Your task to perform on an android device: toggle notifications settings in the gmail app Image 0: 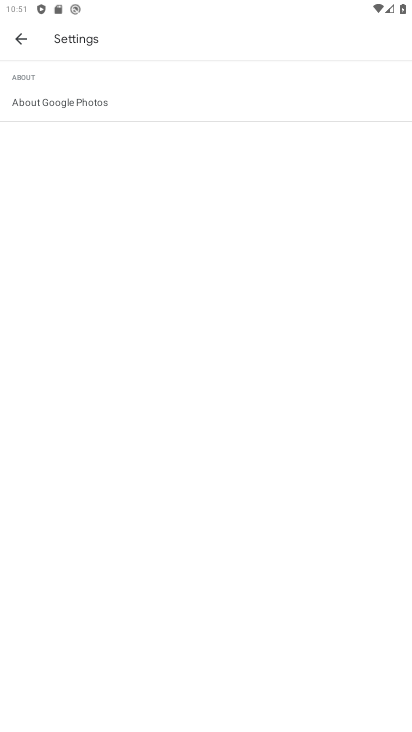
Step 0: press home button
Your task to perform on an android device: toggle notifications settings in the gmail app Image 1: 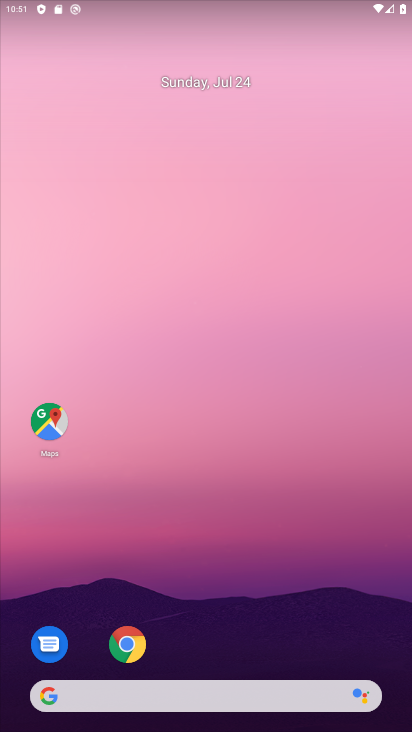
Step 1: drag from (276, 670) to (248, 22)
Your task to perform on an android device: toggle notifications settings in the gmail app Image 2: 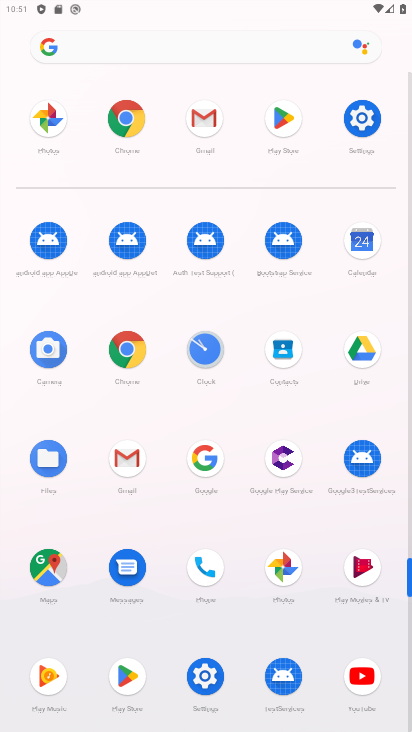
Step 2: click (207, 123)
Your task to perform on an android device: toggle notifications settings in the gmail app Image 3: 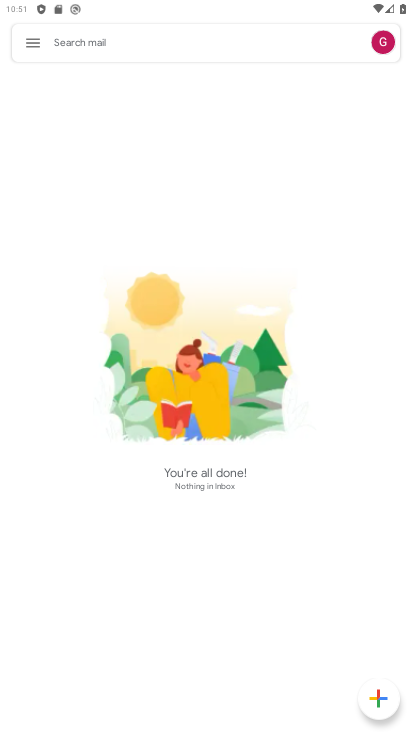
Step 3: click (32, 44)
Your task to perform on an android device: toggle notifications settings in the gmail app Image 4: 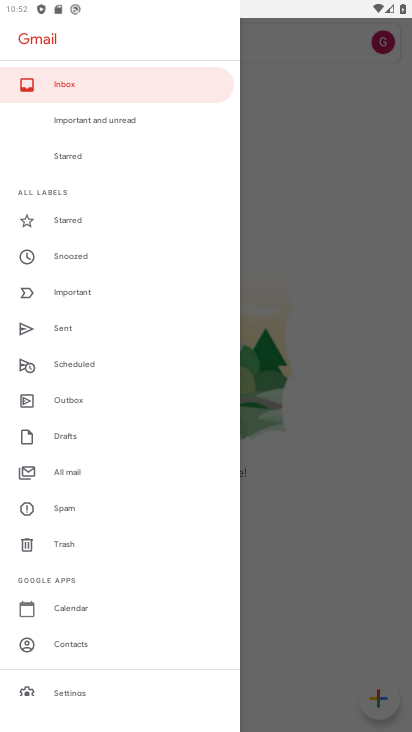
Step 4: drag from (112, 628) to (144, 342)
Your task to perform on an android device: toggle notifications settings in the gmail app Image 5: 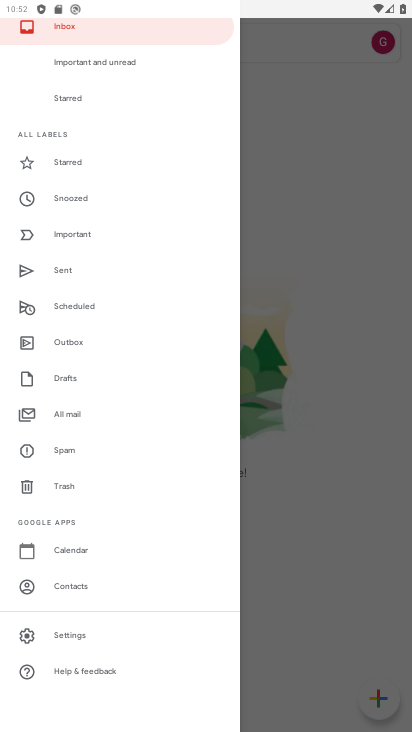
Step 5: click (73, 640)
Your task to perform on an android device: toggle notifications settings in the gmail app Image 6: 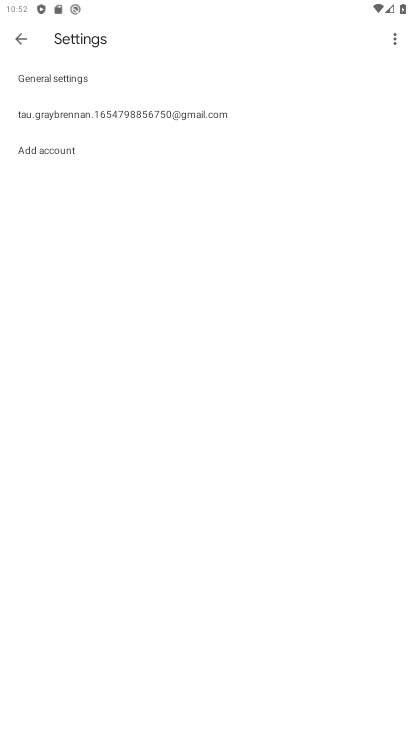
Step 6: click (62, 79)
Your task to perform on an android device: toggle notifications settings in the gmail app Image 7: 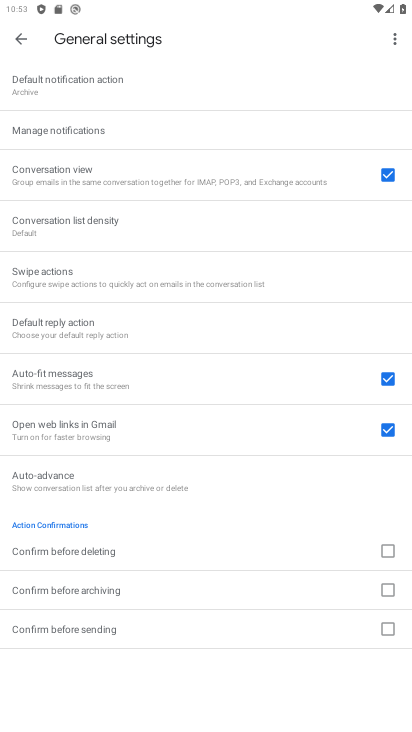
Step 7: click (68, 128)
Your task to perform on an android device: toggle notifications settings in the gmail app Image 8: 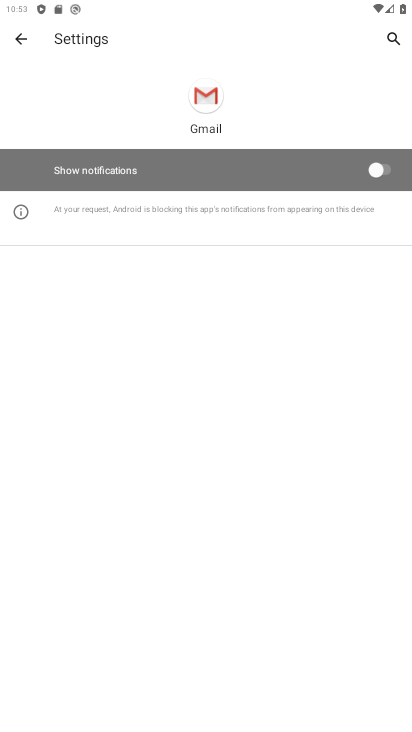
Step 8: click (390, 174)
Your task to perform on an android device: toggle notifications settings in the gmail app Image 9: 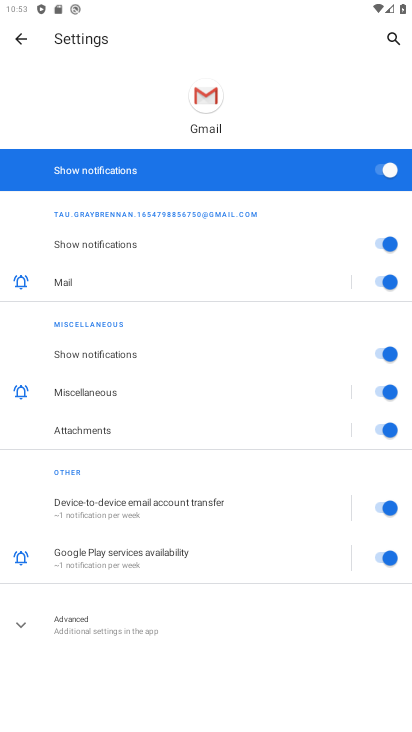
Step 9: task complete